Your task to perform on an android device: turn off picture-in-picture Image 0: 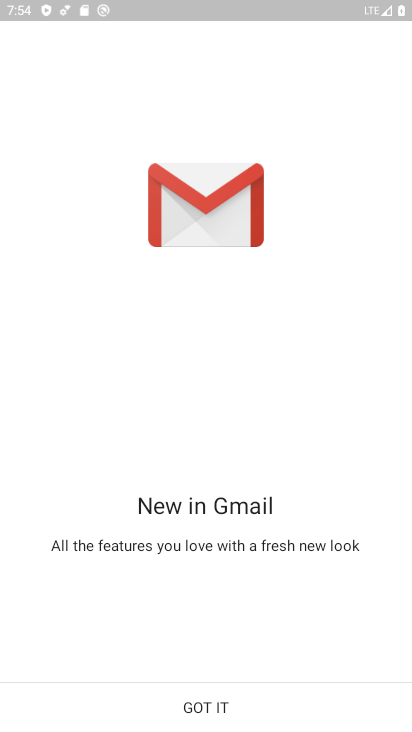
Step 0: press home button
Your task to perform on an android device: turn off picture-in-picture Image 1: 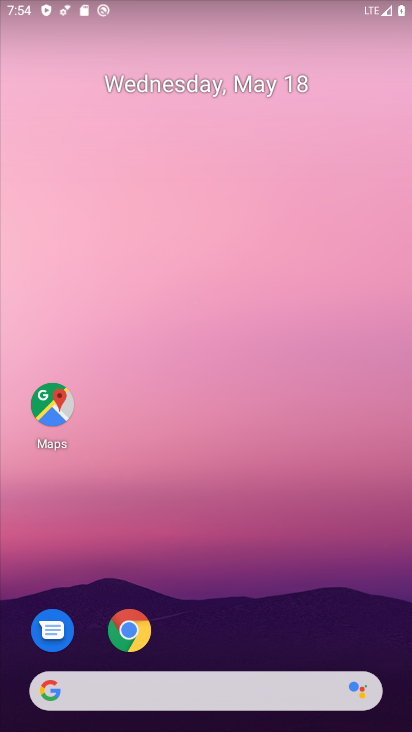
Step 1: click (133, 627)
Your task to perform on an android device: turn off picture-in-picture Image 2: 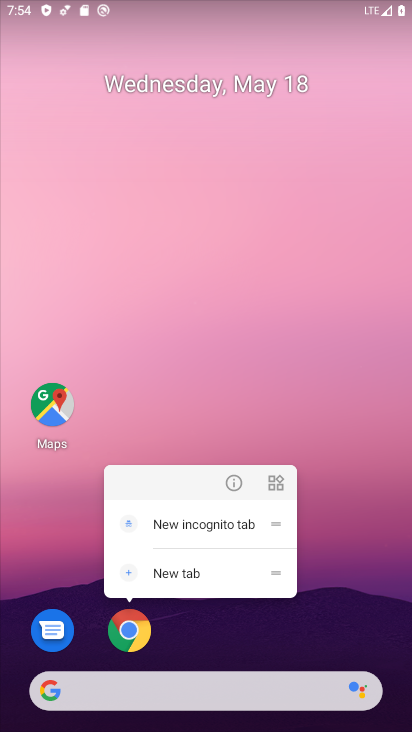
Step 2: click (234, 484)
Your task to perform on an android device: turn off picture-in-picture Image 3: 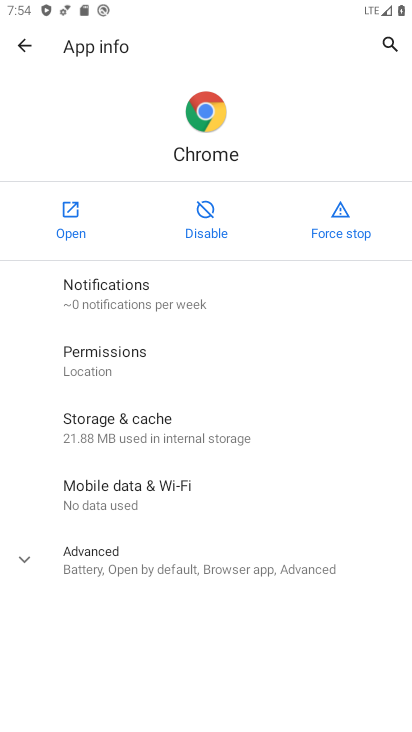
Step 3: click (113, 567)
Your task to perform on an android device: turn off picture-in-picture Image 4: 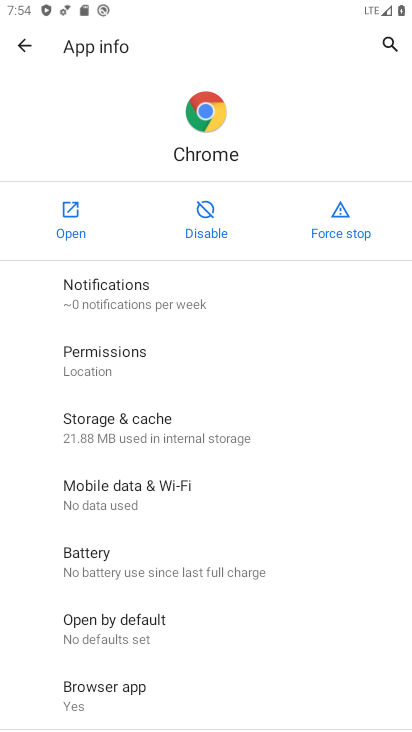
Step 4: drag from (173, 641) to (306, 121)
Your task to perform on an android device: turn off picture-in-picture Image 5: 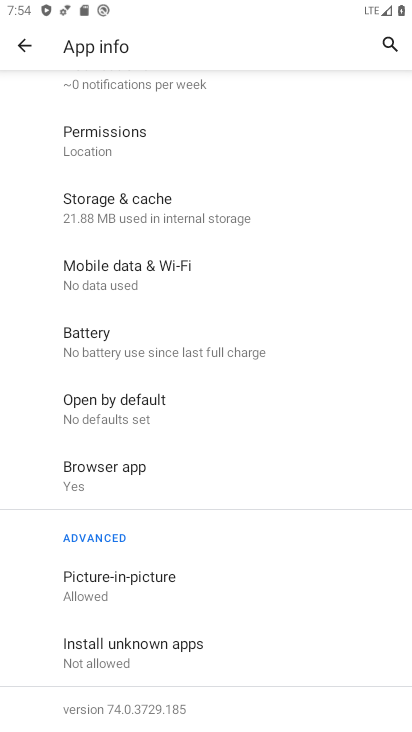
Step 5: click (79, 587)
Your task to perform on an android device: turn off picture-in-picture Image 6: 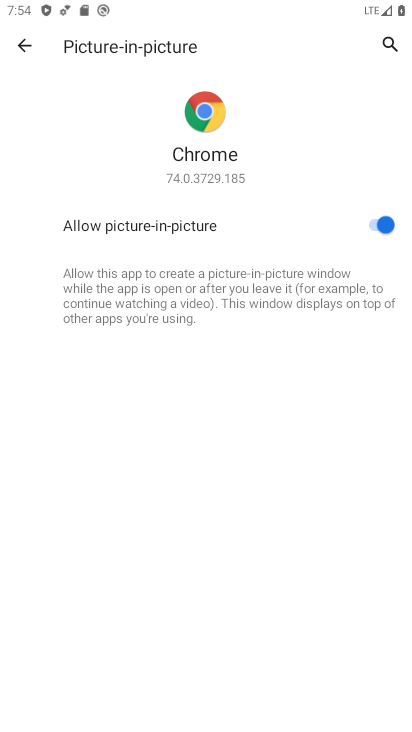
Step 6: click (374, 222)
Your task to perform on an android device: turn off picture-in-picture Image 7: 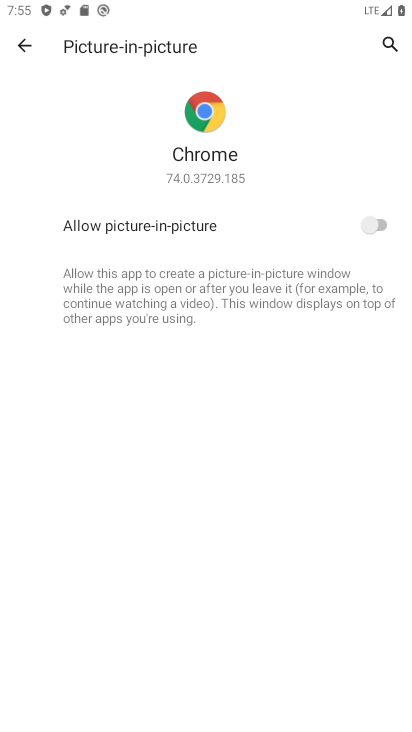
Step 7: task complete